Your task to perform on an android device: change the clock display to digital Image 0: 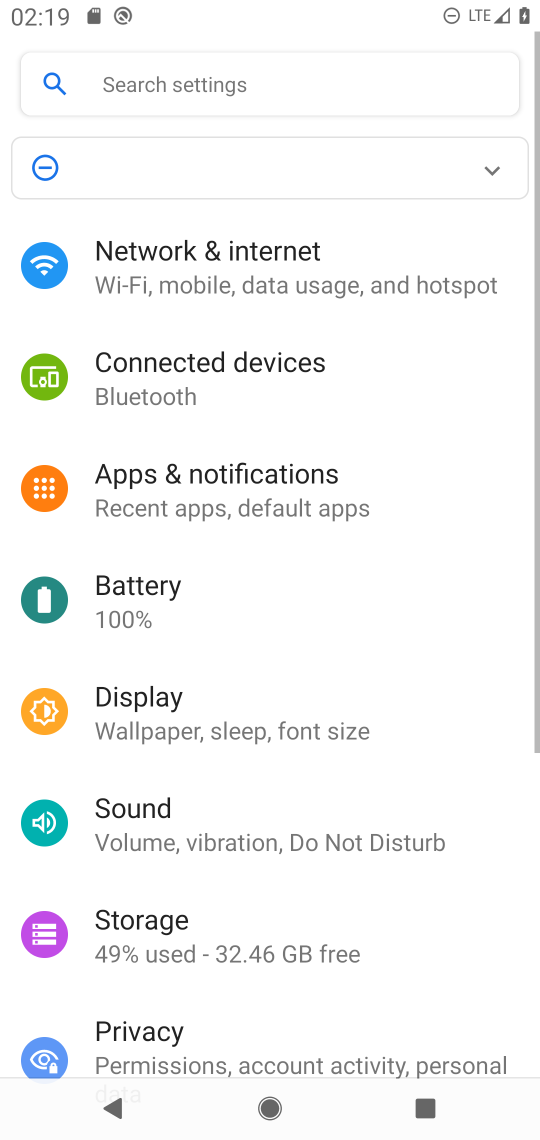
Step 0: press home button
Your task to perform on an android device: change the clock display to digital Image 1: 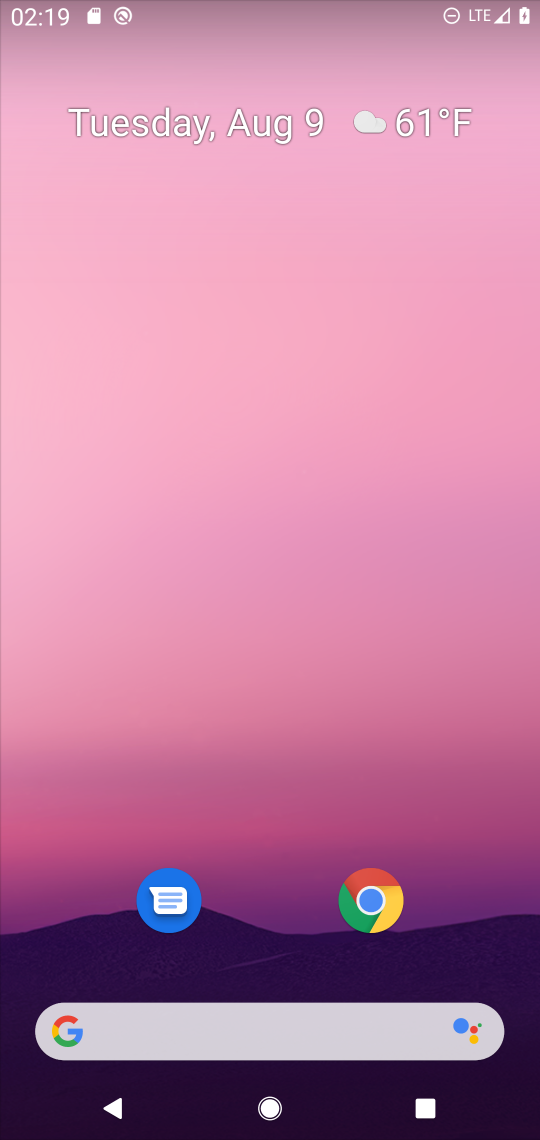
Step 1: drag from (454, 929) to (484, 294)
Your task to perform on an android device: change the clock display to digital Image 2: 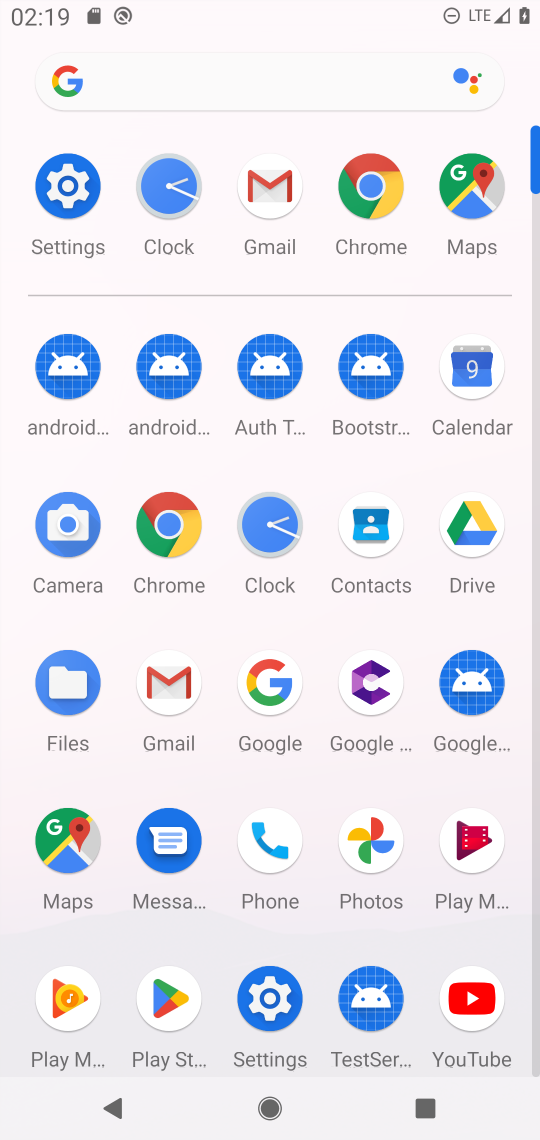
Step 2: click (280, 520)
Your task to perform on an android device: change the clock display to digital Image 3: 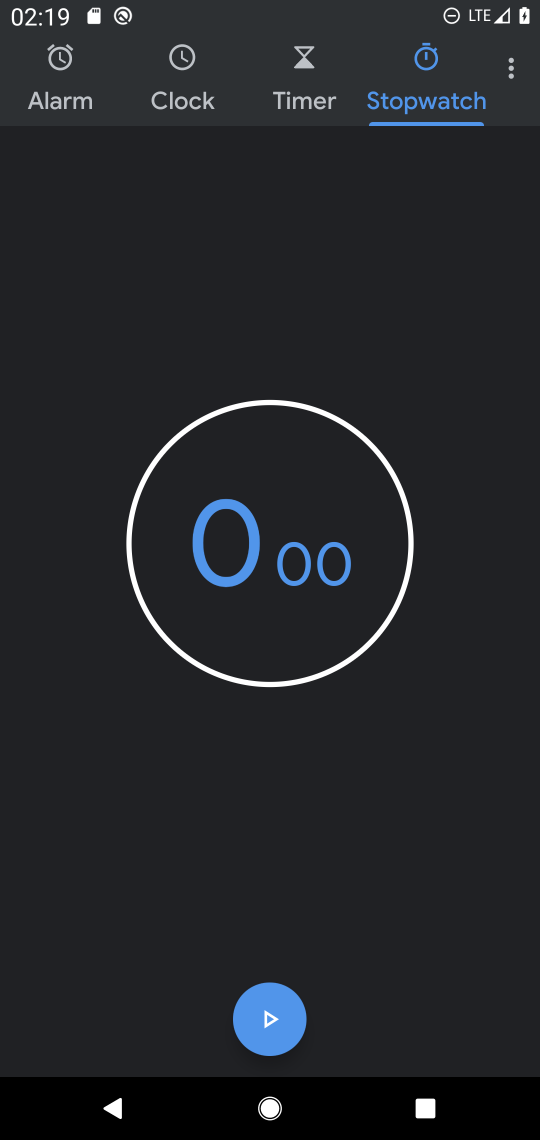
Step 3: click (518, 75)
Your task to perform on an android device: change the clock display to digital Image 4: 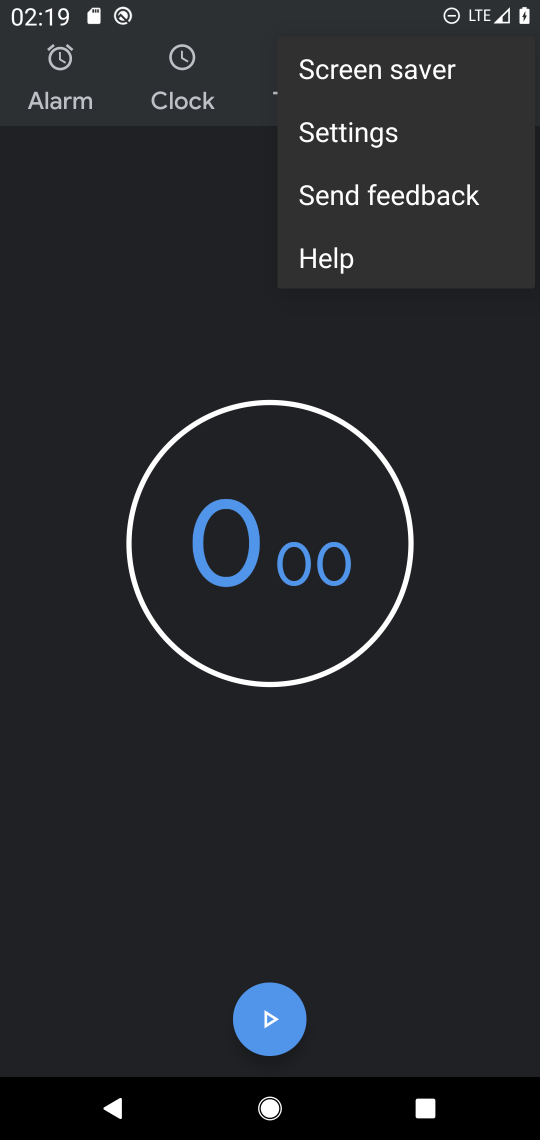
Step 4: click (397, 136)
Your task to perform on an android device: change the clock display to digital Image 5: 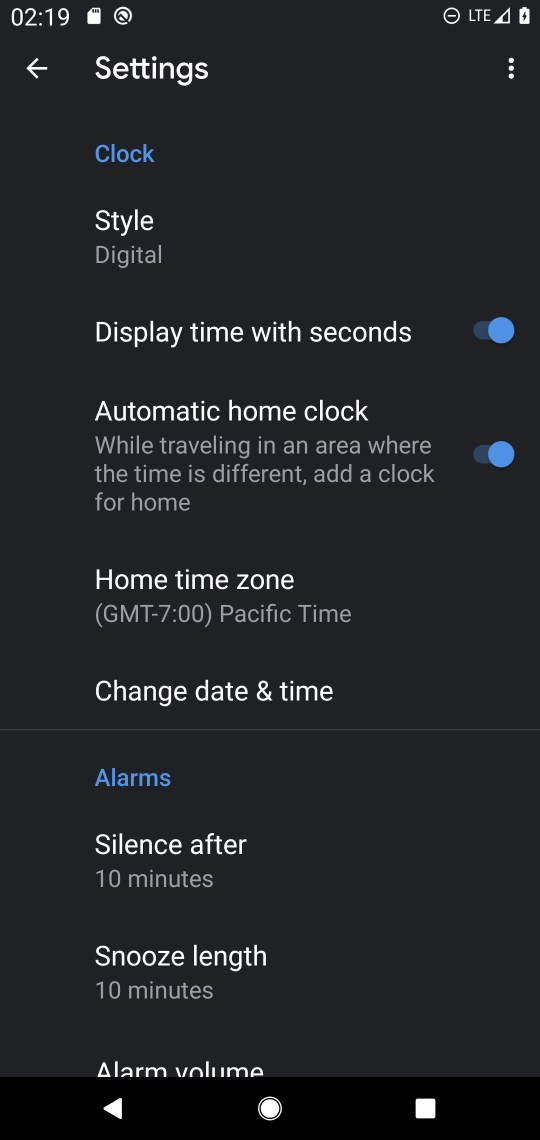
Step 5: task complete